Your task to perform on an android device: Open the calendar app, open the side menu, and click the "Day" option Image 0: 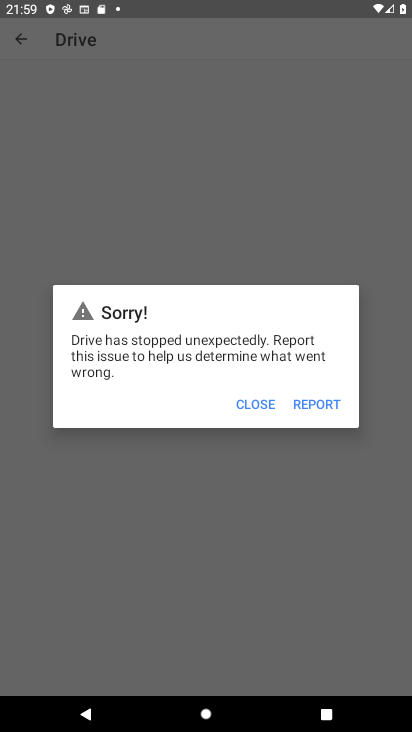
Step 0: press home button
Your task to perform on an android device: Open the calendar app, open the side menu, and click the "Day" option Image 1: 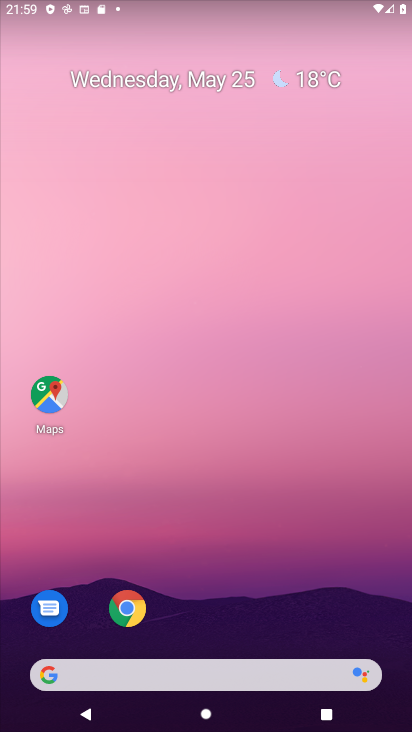
Step 1: drag from (245, 527) to (150, 12)
Your task to perform on an android device: Open the calendar app, open the side menu, and click the "Day" option Image 2: 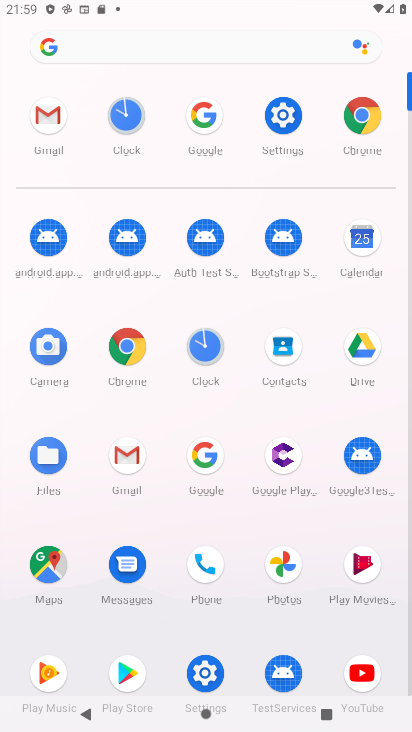
Step 2: click (359, 243)
Your task to perform on an android device: Open the calendar app, open the side menu, and click the "Day" option Image 3: 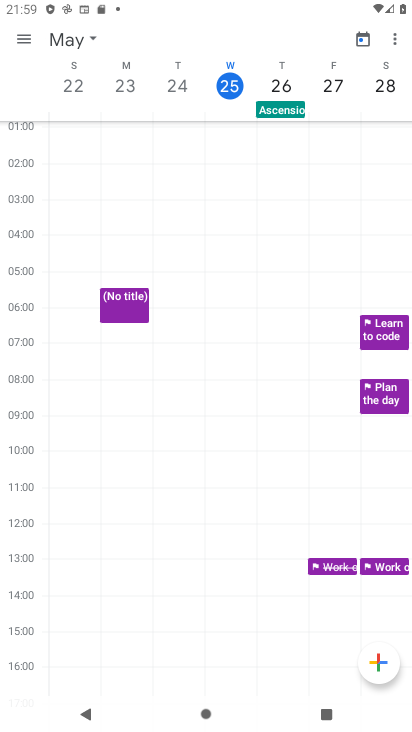
Step 3: click (22, 39)
Your task to perform on an android device: Open the calendar app, open the side menu, and click the "Day" option Image 4: 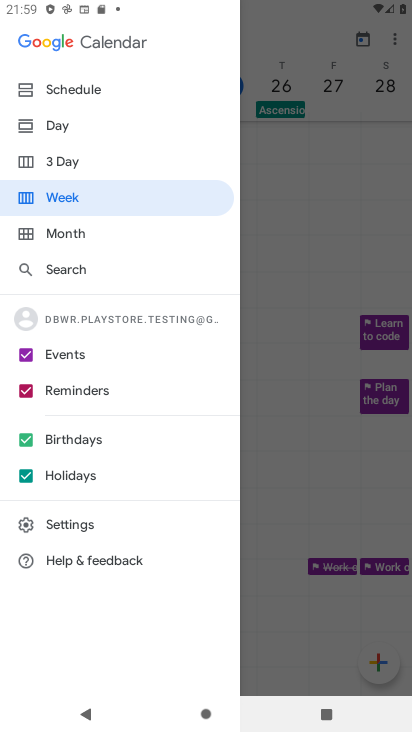
Step 4: click (71, 119)
Your task to perform on an android device: Open the calendar app, open the side menu, and click the "Day" option Image 5: 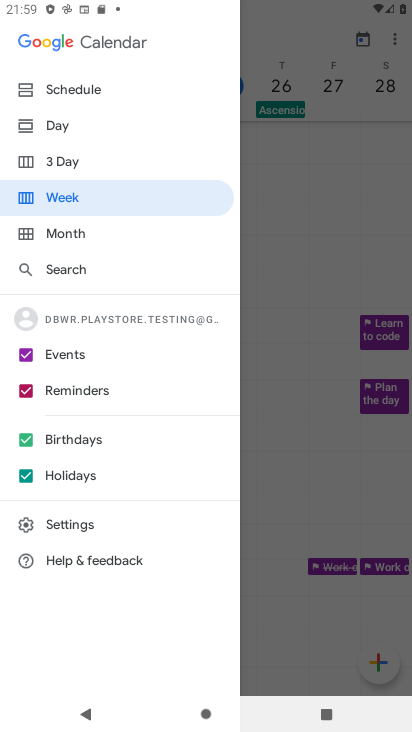
Step 5: click (25, 119)
Your task to perform on an android device: Open the calendar app, open the side menu, and click the "Day" option Image 6: 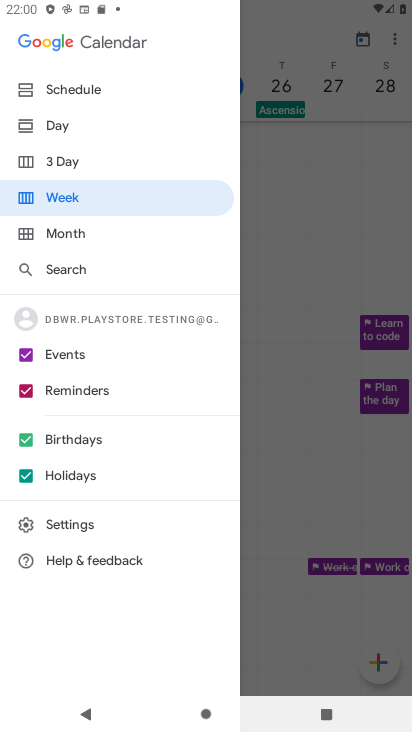
Step 6: click (61, 121)
Your task to perform on an android device: Open the calendar app, open the side menu, and click the "Day" option Image 7: 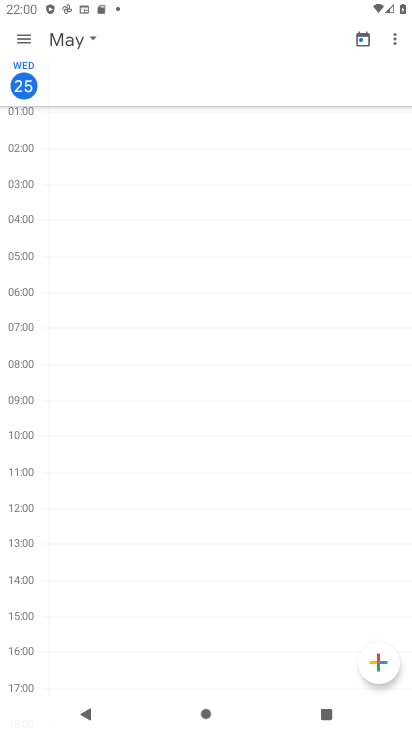
Step 7: task complete